Your task to perform on an android device: turn on bluetooth scan Image 0: 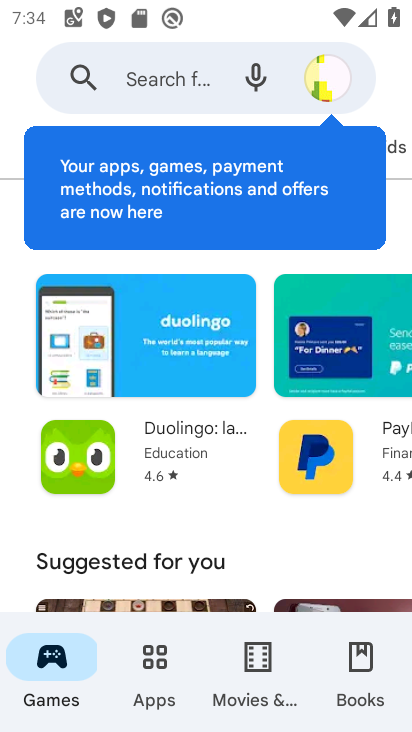
Step 0: press home button
Your task to perform on an android device: turn on bluetooth scan Image 1: 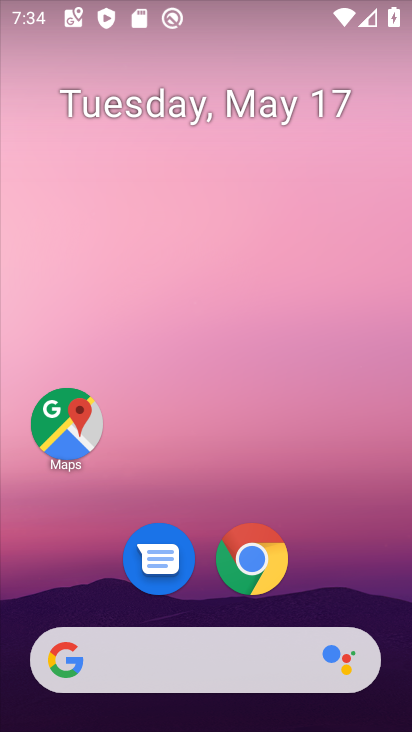
Step 1: drag from (220, 708) to (243, 84)
Your task to perform on an android device: turn on bluetooth scan Image 2: 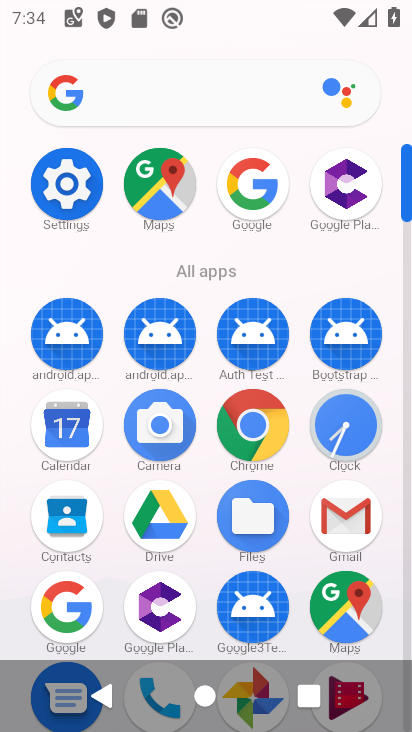
Step 2: click (62, 189)
Your task to perform on an android device: turn on bluetooth scan Image 3: 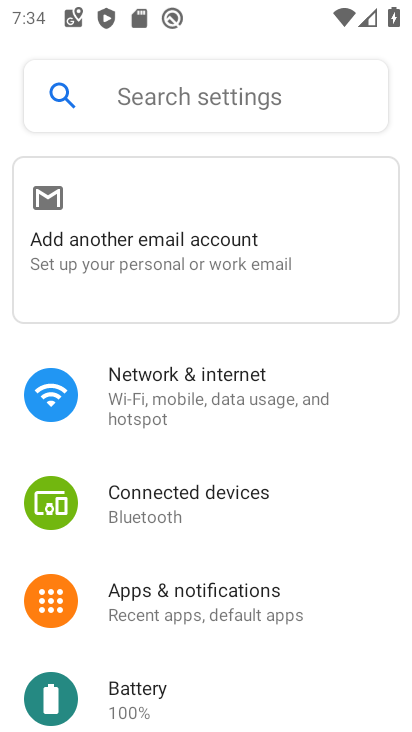
Step 3: drag from (239, 670) to (331, 168)
Your task to perform on an android device: turn on bluetooth scan Image 4: 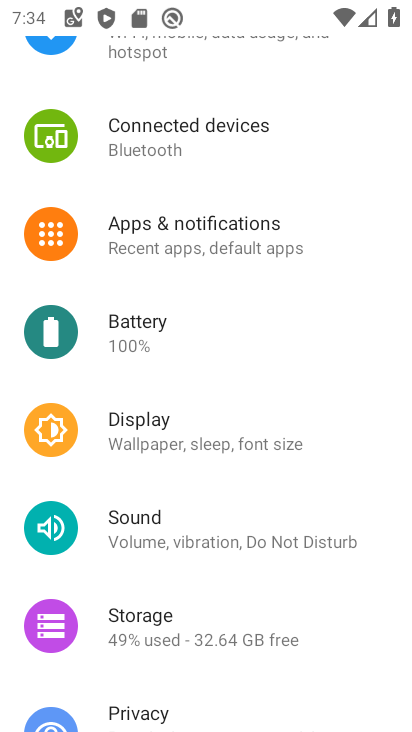
Step 4: drag from (214, 671) to (222, 143)
Your task to perform on an android device: turn on bluetooth scan Image 5: 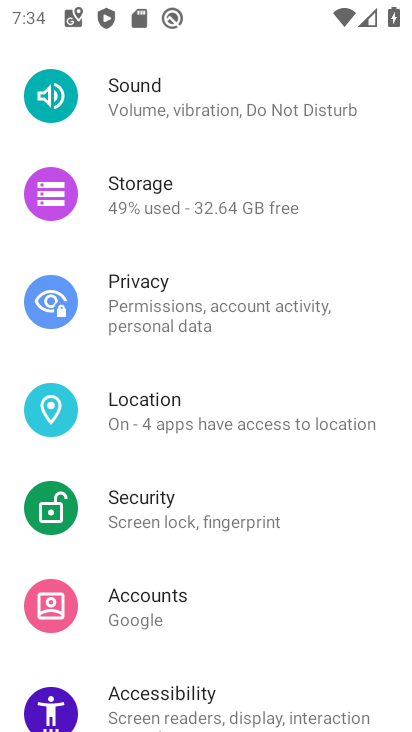
Step 5: click (231, 417)
Your task to perform on an android device: turn on bluetooth scan Image 6: 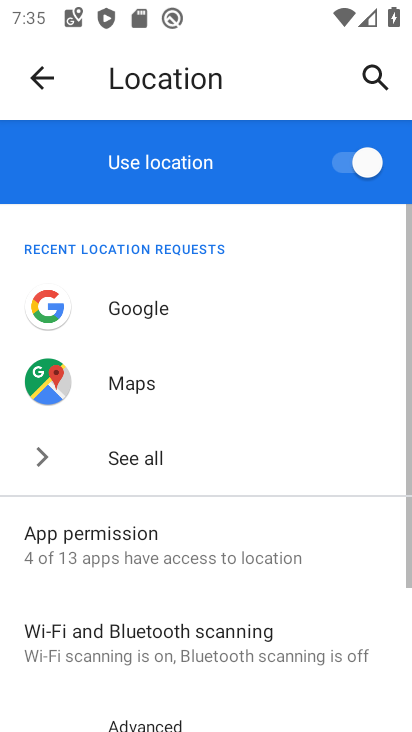
Step 6: click (248, 642)
Your task to perform on an android device: turn on bluetooth scan Image 7: 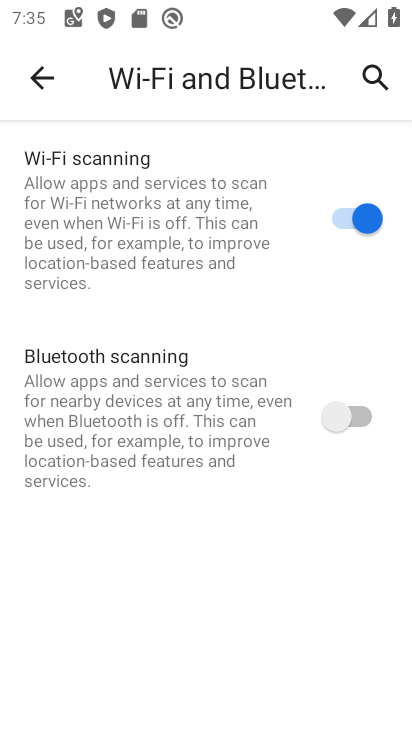
Step 7: click (356, 420)
Your task to perform on an android device: turn on bluetooth scan Image 8: 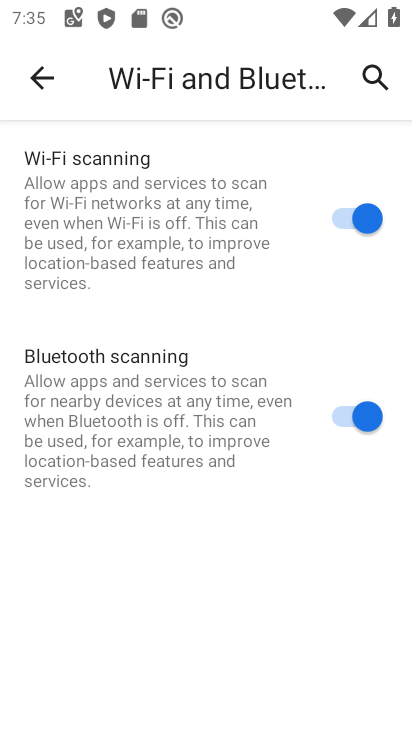
Step 8: task complete